Your task to perform on an android device: turn off location Image 0: 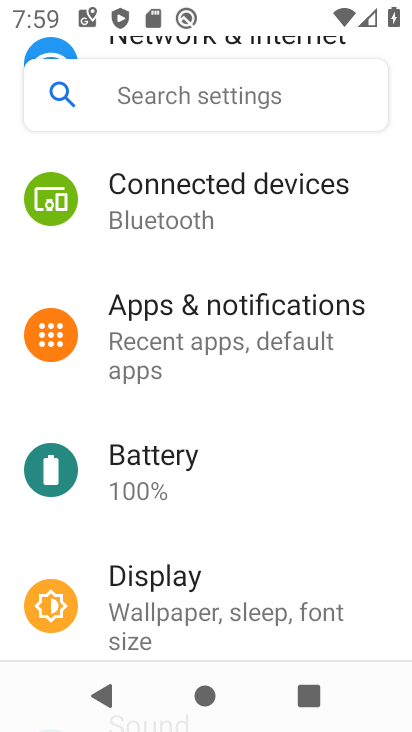
Step 0: drag from (181, 584) to (241, 106)
Your task to perform on an android device: turn off location Image 1: 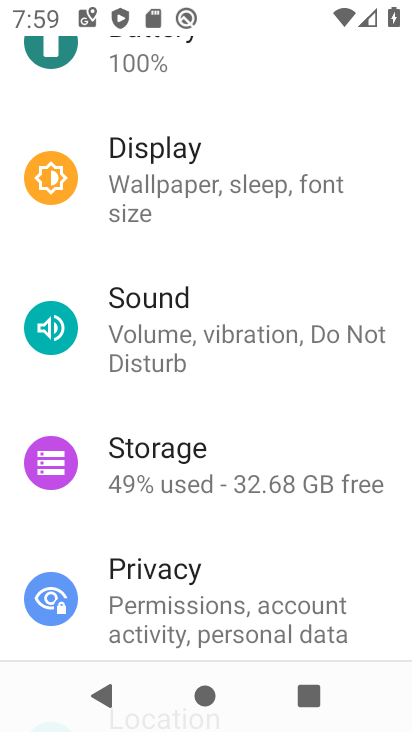
Step 1: drag from (213, 608) to (253, 124)
Your task to perform on an android device: turn off location Image 2: 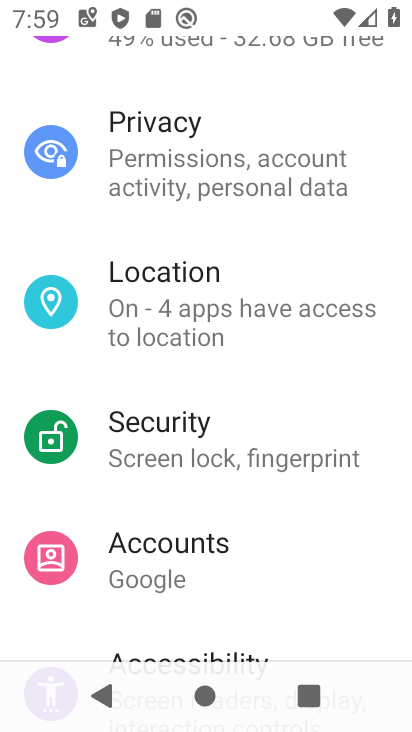
Step 2: click (198, 342)
Your task to perform on an android device: turn off location Image 3: 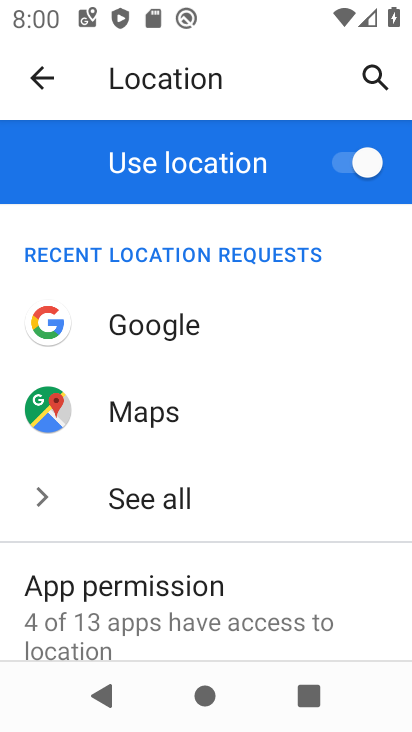
Step 3: click (363, 163)
Your task to perform on an android device: turn off location Image 4: 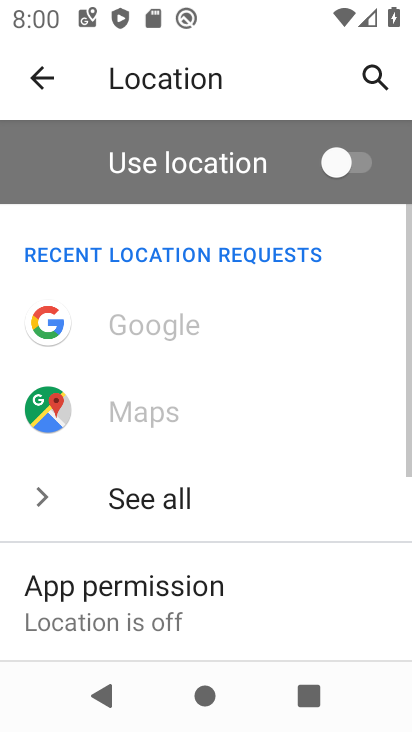
Step 4: task complete